Your task to perform on an android device: star an email in the gmail app Image 0: 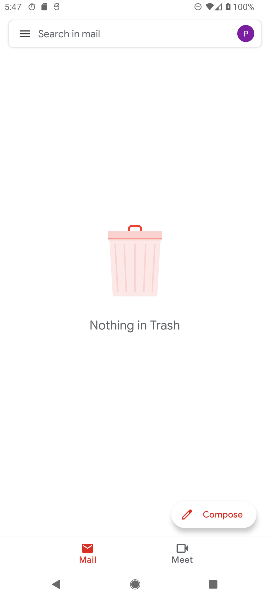
Step 0: press back button
Your task to perform on an android device: star an email in the gmail app Image 1: 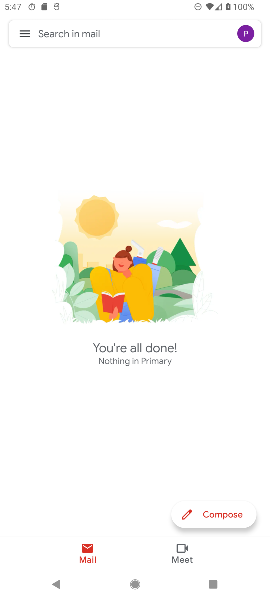
Step 1: press back button
Your task to perform on an android device: star an email in the gmail app Image 2: 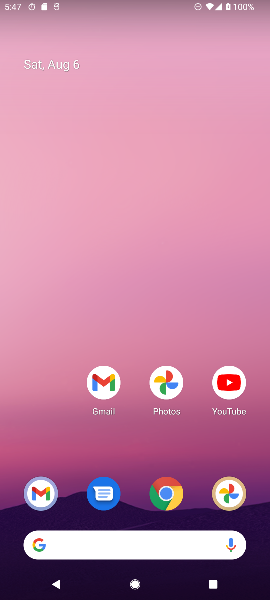
Step 2: drag from (159, 514) to (116, 181)
Your task to perform on an android device: star an email in the gmail app Image 3: 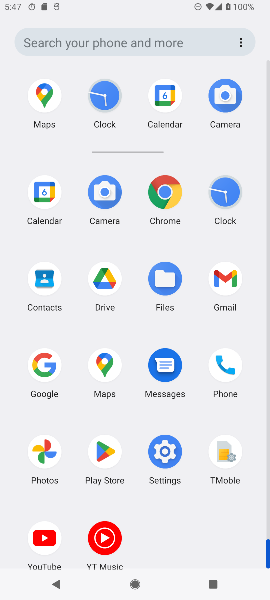
Step 3: click (227, 270)
Your task to perform on an android device: star an email in the gmail app Image 4: 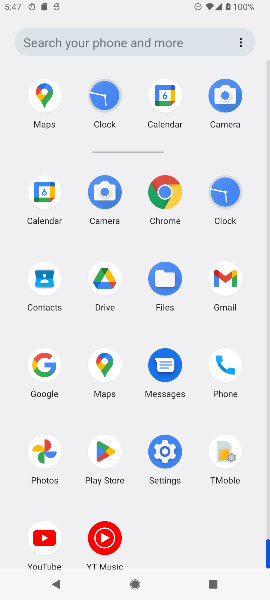
Step 4: click (227, 274)
Your task to perform on an android device: star an email in the gmail app Image 5: 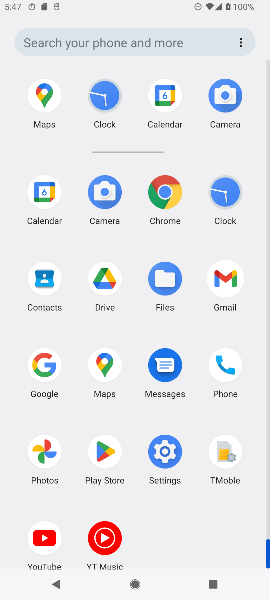
Step 5: click (227, 278)
Your task to perform on an android device: star an email in the gmail app Image 6: 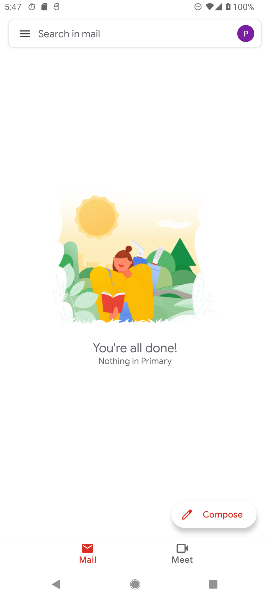
Step 6: click (13, 22)
Your task to perform on an android device: star an email in the gmail app Image 7: 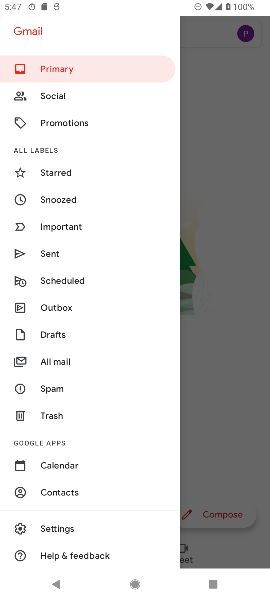
Step 7: click (58, 353)
Your task to perform on an android device: star an email in the gmail app Image 8: 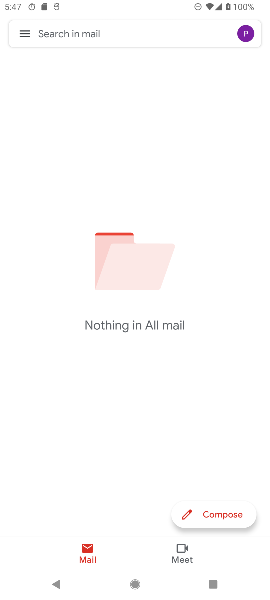
Step 8: task complete